Your task to perform on an android device: turn off notifications in google photos Image 0: 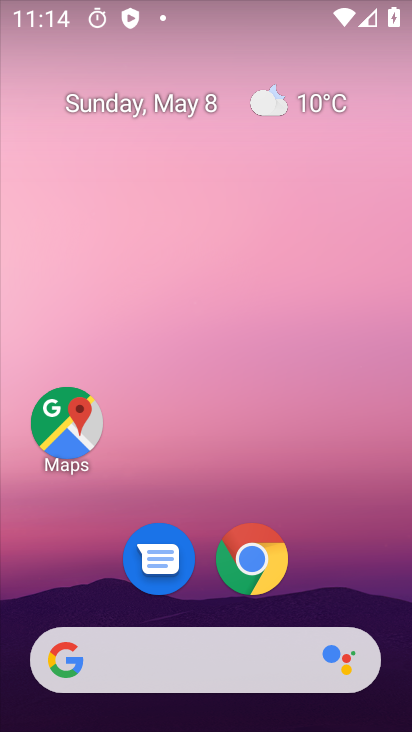
Step 0: drag from (213, 580) to (234, 65)
Your task to perform on an android device: turn off notifications in google photos Image 1: 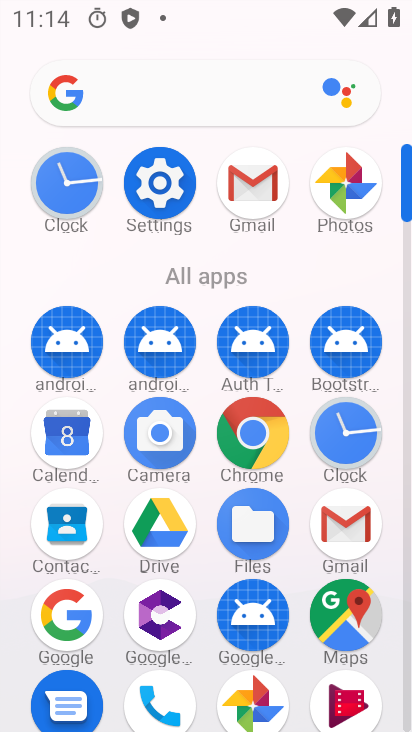
Step 1: drag from (242, 574) to (302, 207)
Your task to perform on an android device: turn off notifications in google photos Image 2: 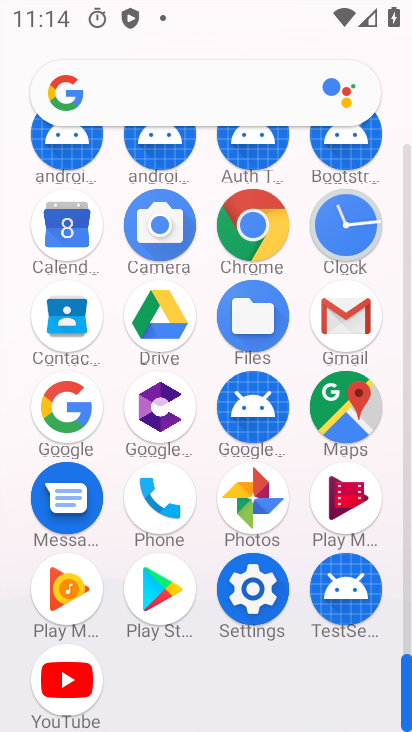
Step 2: click (249, 509)
Your task to perform on an android device: turn off notifications in google photos Image 3: 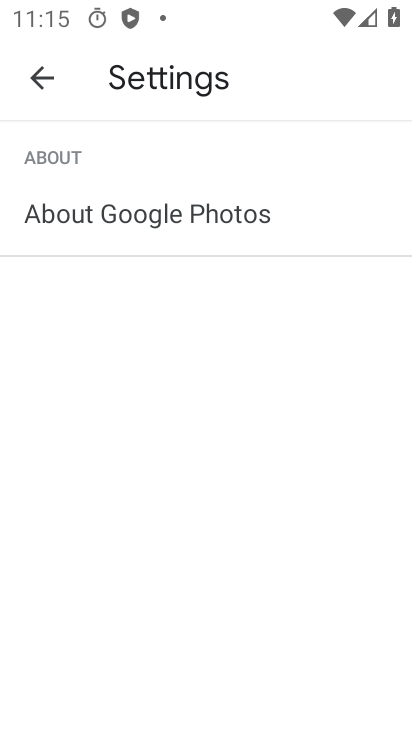
Step 3: click (36, 87)
Your task to perform on an android device: turn off notifications in google photos Image 4: 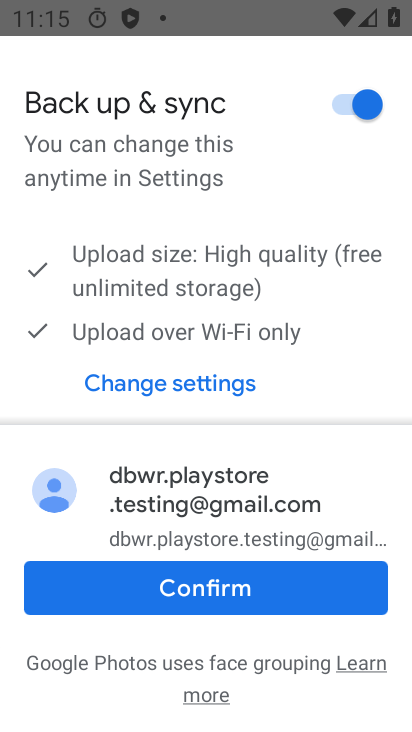
Step 4: click (159, 577)
Your task to perform on an android device: turn off notifications in google photos Image 5: 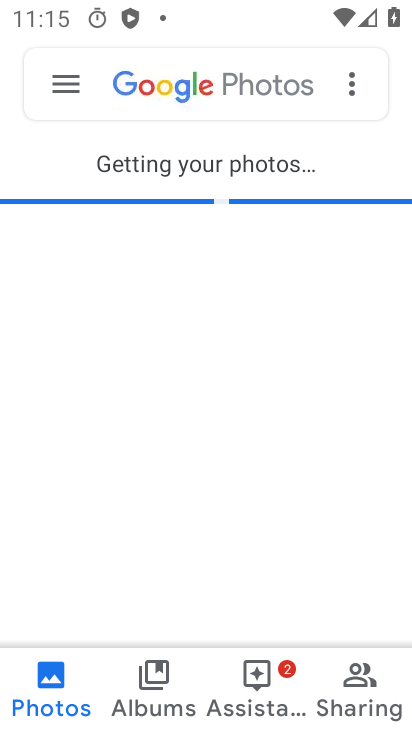
Step 5: click (62, 84)
Your task to perform on an android device: turn off notifications in google photos Image 6: 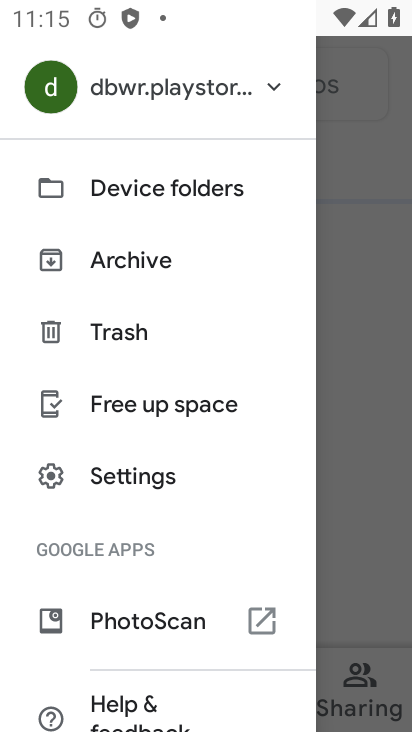
Step 6: click (137, 478)
Your task to perform on an android device: turn off notifications in google photos Image 7: 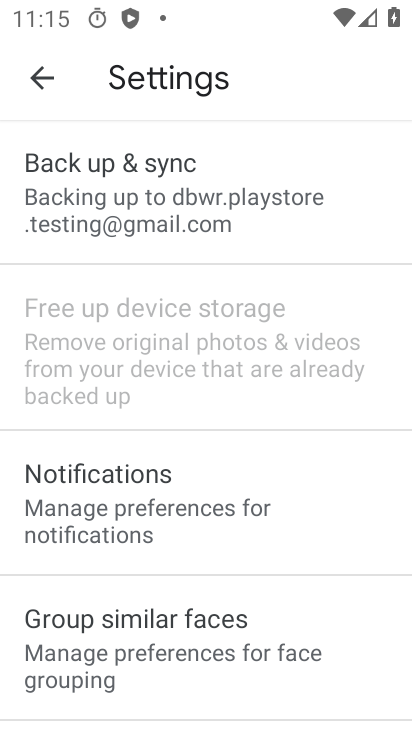
Step 7: click (165, 510)
Your task to perform on an android device: turn off notifications in google photos Image 8: 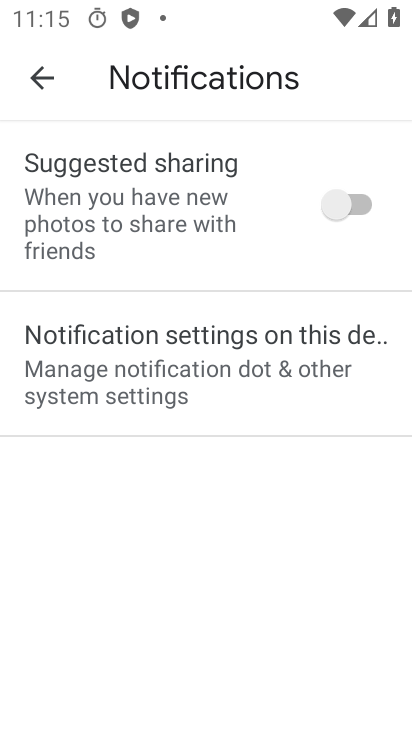
Step 8: click (121, 334)
Your task to perform on an android device: turn off notifications in google photos Image 9: 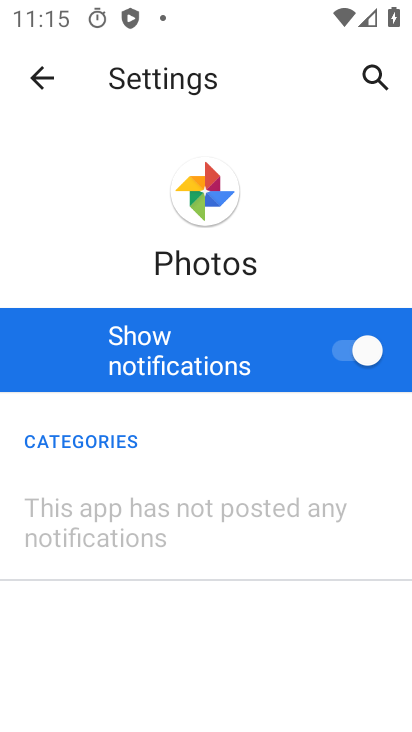
Step 9: click (328, 374)
Your task to perform on an android device: turn off notifications in google photos Image 10: 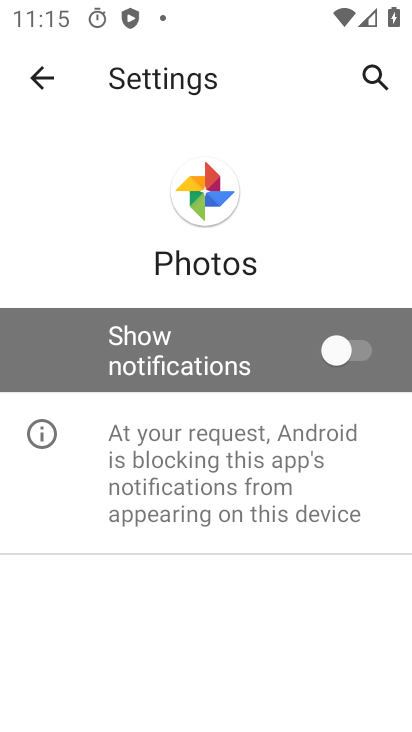
Step 10: task complete